Your task to perform on an android device: Toggle the flashlight Image 0: 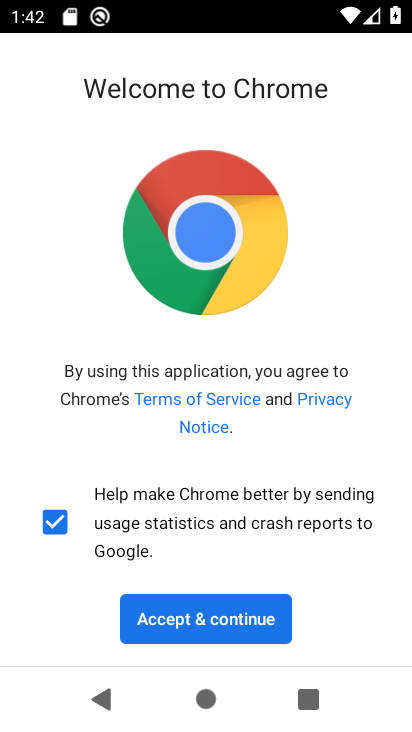
Step 0: press home button
Your task to perform on an android device: Toggle the flashlight Image 1: 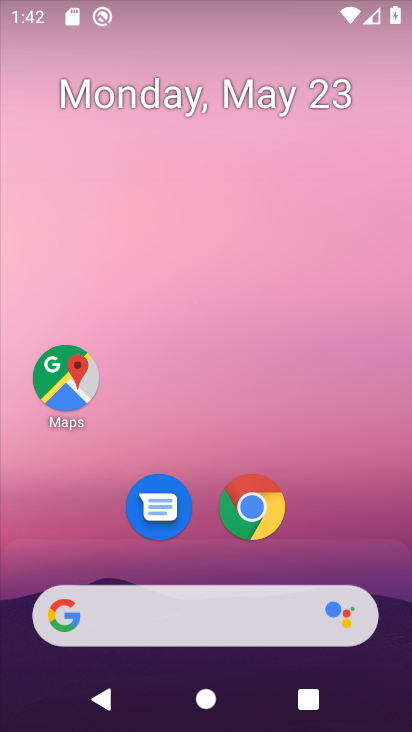
Step 1: drag from (224, 722) to (226, 146)
Your task to perform on an android device: Toggle the flashlight Image 2: 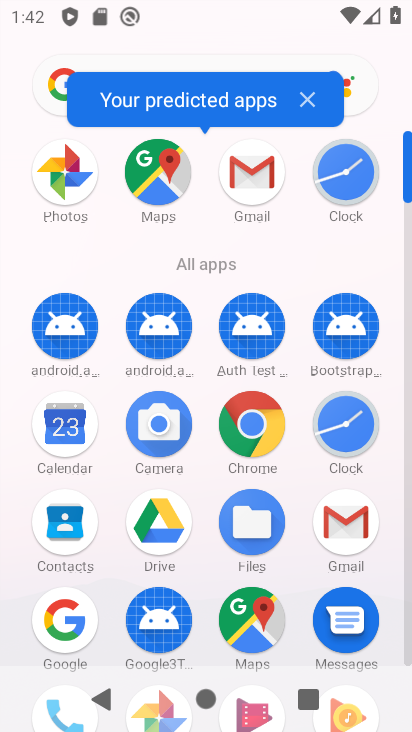
Step 2: drag from (207, 633) to (219, 288)
Your task to perform on an android device: Toggle the flashlight Image 3: 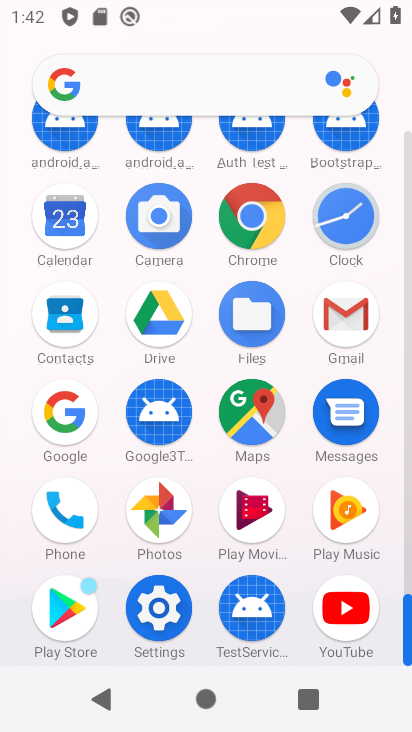
Step 3: click (160, 614)
Your task to perform on an android device: Toggle the flashlight Image 4: 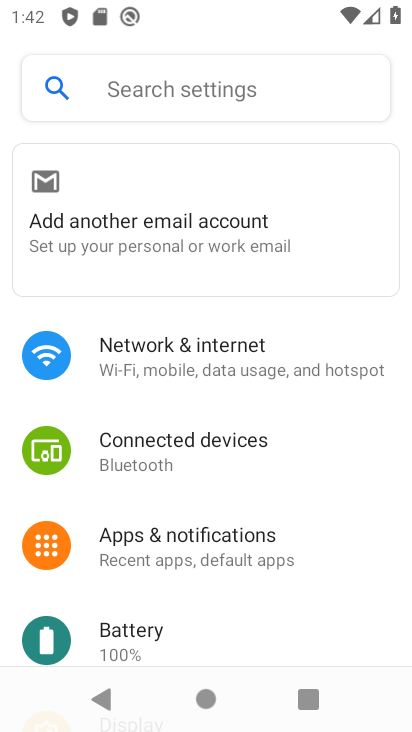
Step 4: task complete